Your task to perform on an android device: move an email to a new category in the gmail app Image 0: 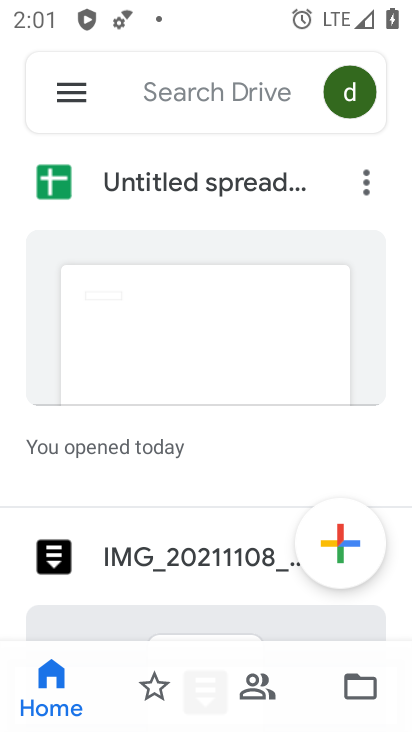
Step 0: press back button
Your task to perform on an android device: move an email to a new category in the gmail app Image 1: 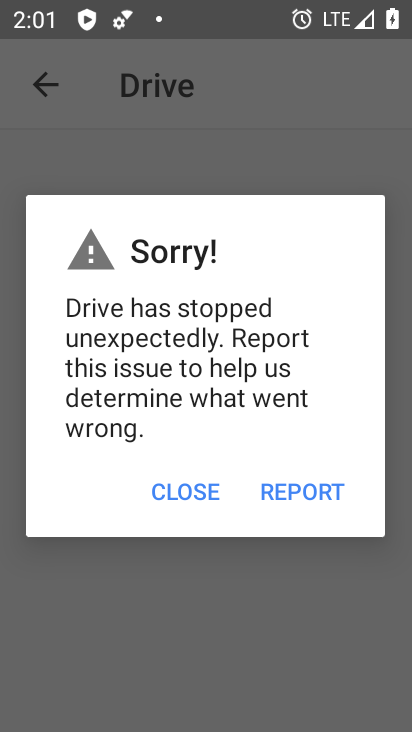
Step 1: press back button
Your task to perform on an android device: move an email to a new category in the gmail app Image 2: 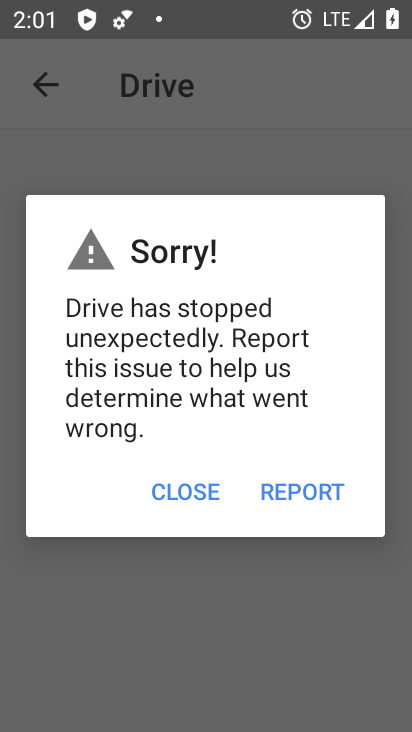
Step 2: press home button
Your task to perform on an android device: move an email to a new category in the gmail app Image 3: 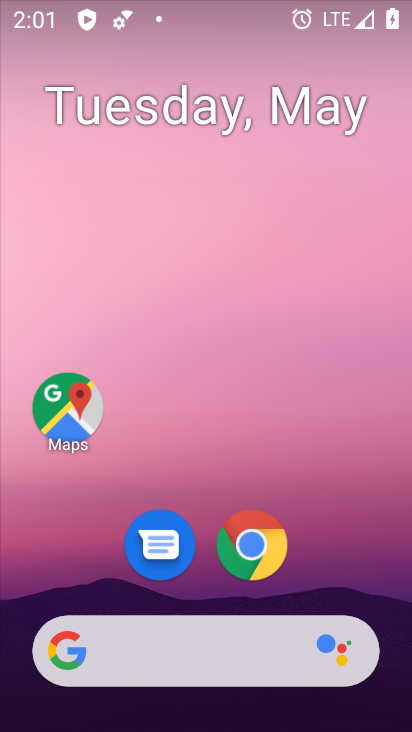
Step 3: drag from (325, 591) to (231, 15)
Your task to perform on an android device: move an email to a new category in the gmail app Image 4: 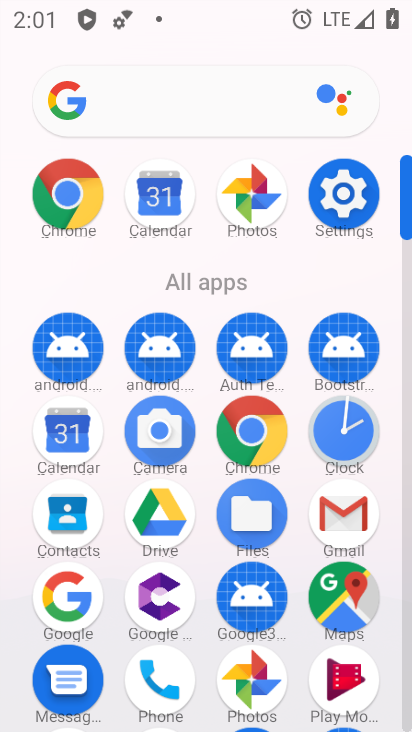
Step 4: click (346, 509)
Your task to perform on an android device: move an email to a new category in the gmail app Image 5: 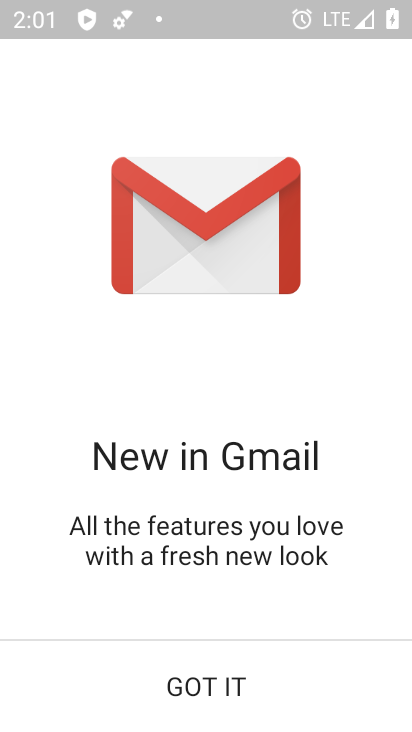
Step 5: click (184, 655)
Your task to perform on an android device: move an email to a new category in the gmail app Image 6: 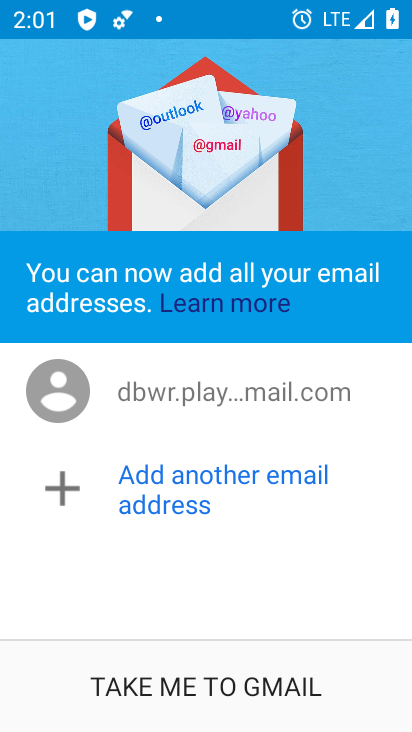
Step 6: click (200, 672)
Your task to perform on an android device: move an email to a new category in the gmail app Image 7: 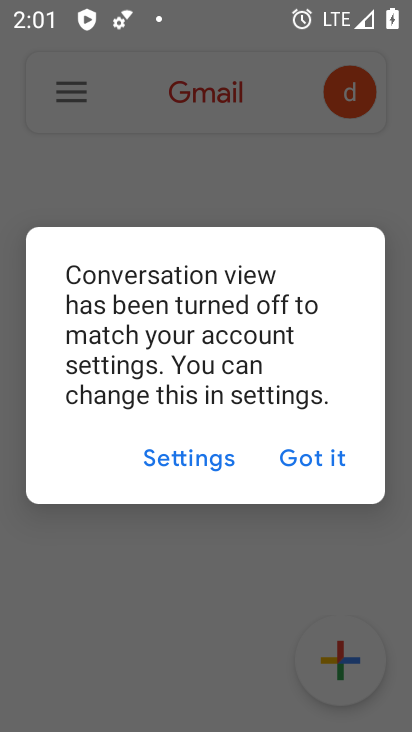
Step 7: click (322, 465)
Your task to perform on an android device: move an email to a new category in the gmail app Image 8: 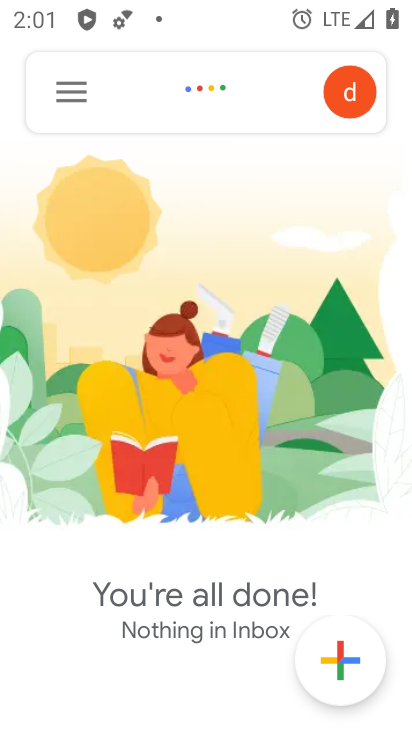
Step 8: click (68, 82)
Your task to perform on an android device: move an email to a new category in the gmail app Image 9: 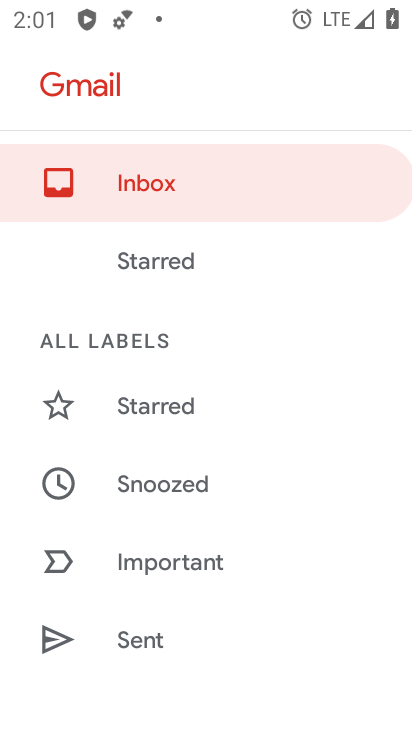
Step 9: drag from (246, 538) to (225, 148)
Your task to perform on an android device: move an email to a new category in the gmail app Image 10: 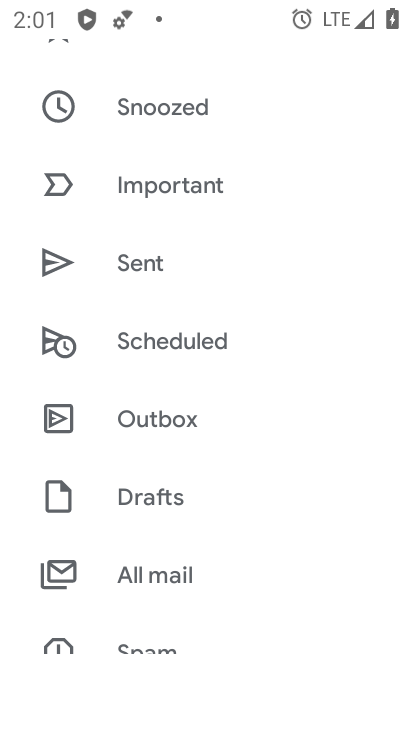
Step 10: click (158, 574)
Your task to perform on an android device: move an email to a new category in the gmail app Image 11: 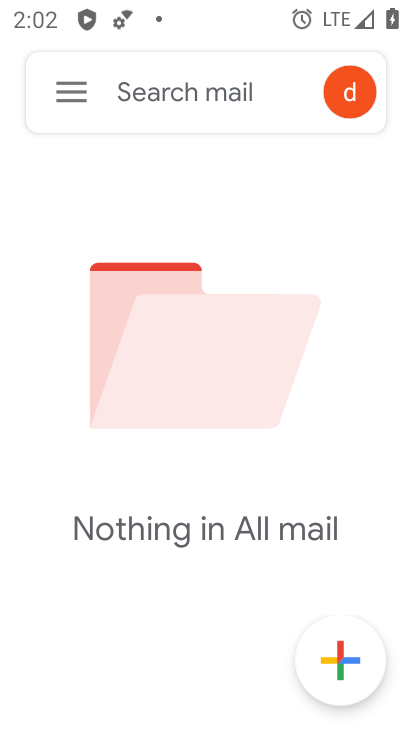
Step 11: click (74, 79)
Your task to perform on an android device: move an email to a new category in the gmail app Image 12: 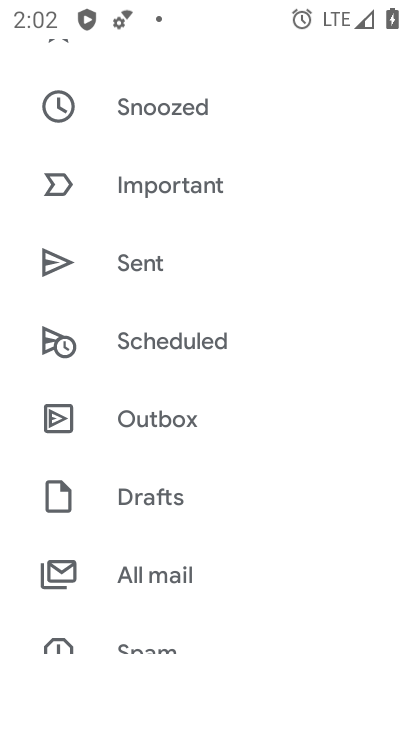
Step 12: drag from (276, 201) to (328, 614)
Your task to perform on an android device: move an email to a new category in the gmail app Image 13: 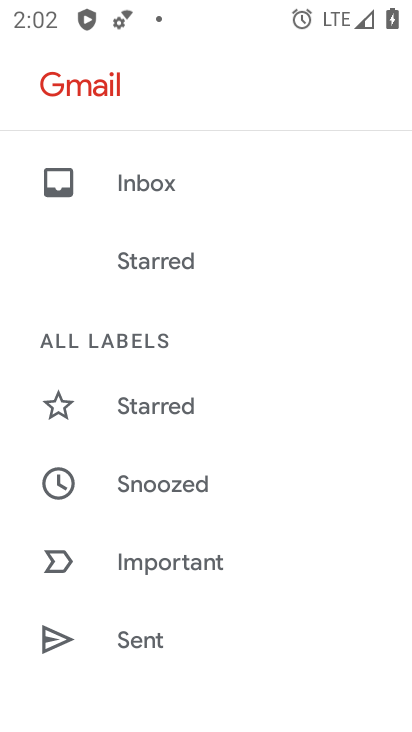
Step 13: click (182, 184)
Your task to perform on an android device: move an email to a new category in the gmail app Image 14: 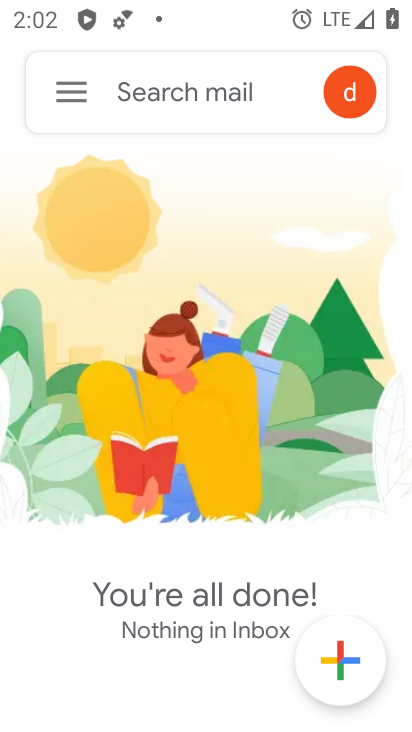
Step 14: click (60, 81)
Your task to perform on an android device: move an email to a new category in the gmail app Image 15: 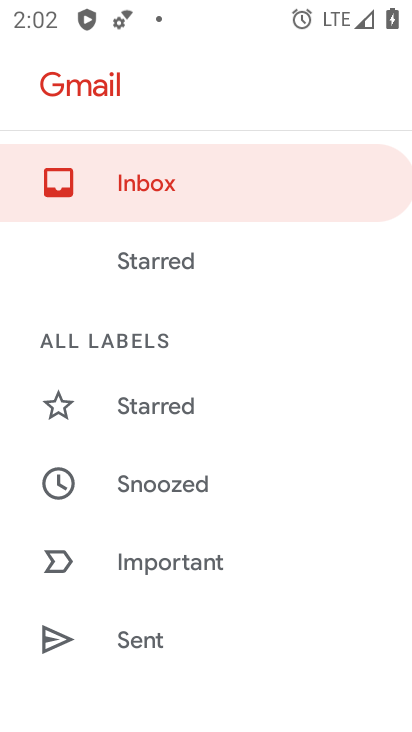
Step 15: drag from (278, 610) to (288, 156)
Your task to perform on an android device: move an email to a new category in the gmail app Image 16: 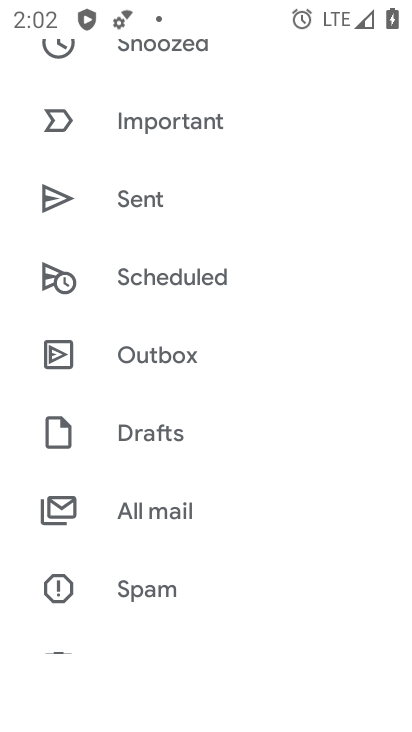
Step 16: click (176, 502)
Your task to perform on an android device: move an email to a new category in the gmail app Image 17: 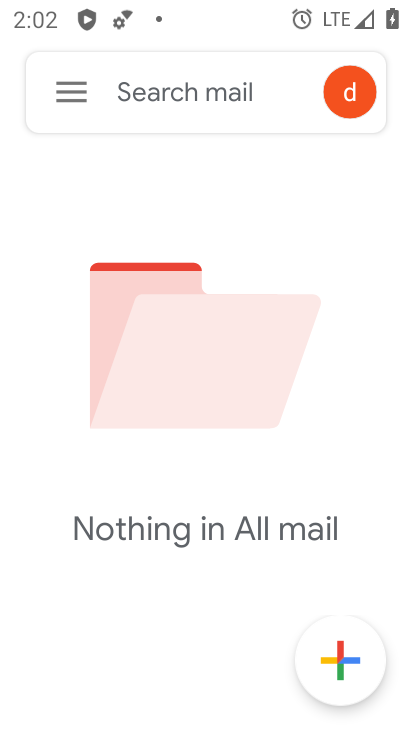
Step 17: task complete